Your task to perform on an android device: Open Google Chrome and open the bookmarks view Image 0: 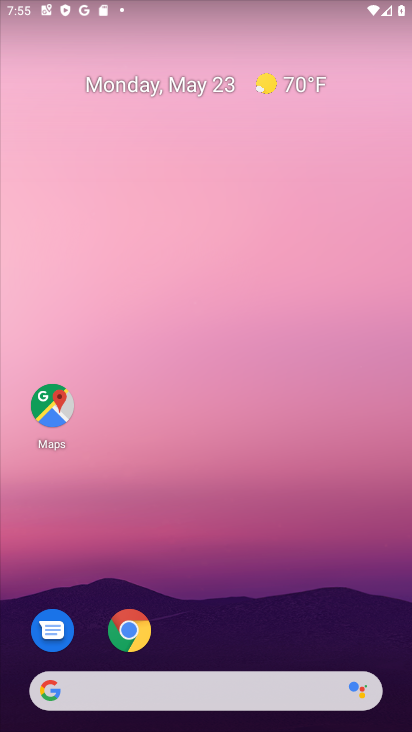
Step 0: drag from (269, 582) to (296, 153)
Your task to perform on an android device: Open Google Chrome and open the bookmarks view Image 1: 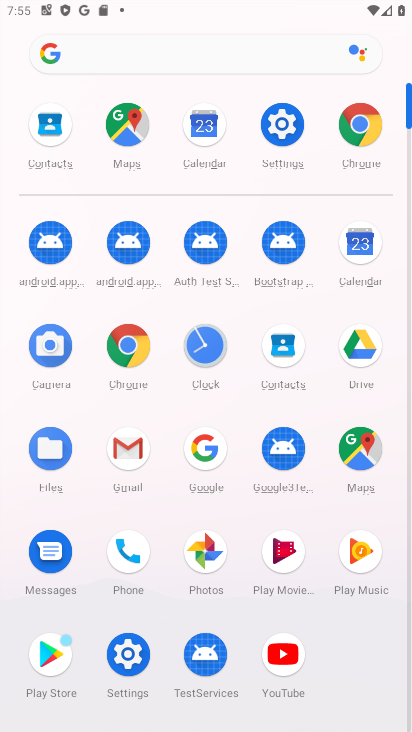
Step 1: click (363, 130)
Your task to perform on an android device: Open Google Chrome and open the bookmarks view Image 2: 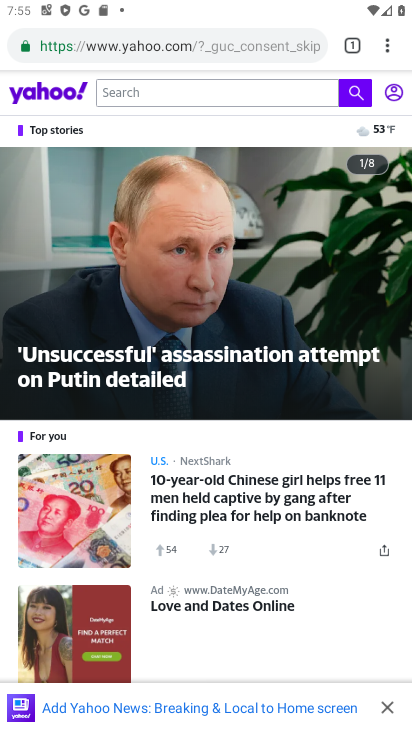
Step 2: click (384, 44)
Your task to perform on an android device: Open Google Chrome and open the bookmarks view Image 3: 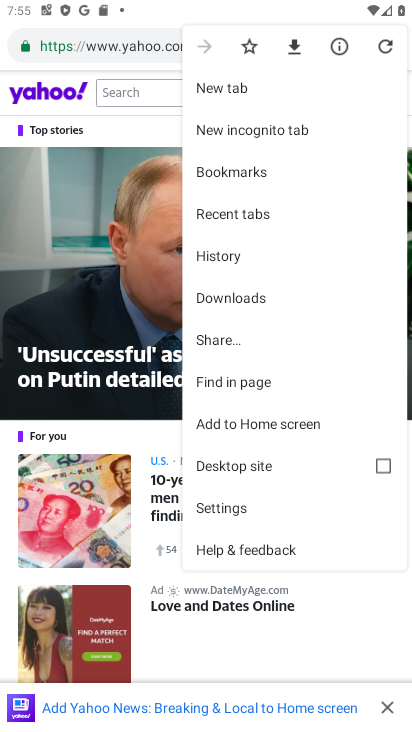
Step 3: click (236, 169)
Your task to perform on an android device: Open Google Chrome and open the bookmarks view Image 4: 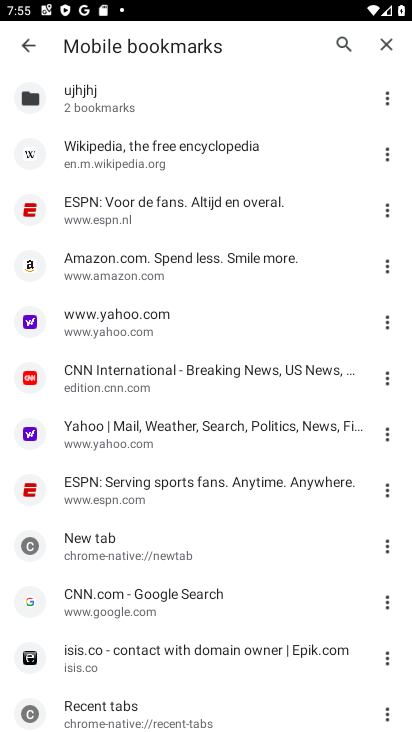
Step 4: task complete